Your task to perform on an android device: Open Chrome and go to settings Image 0: 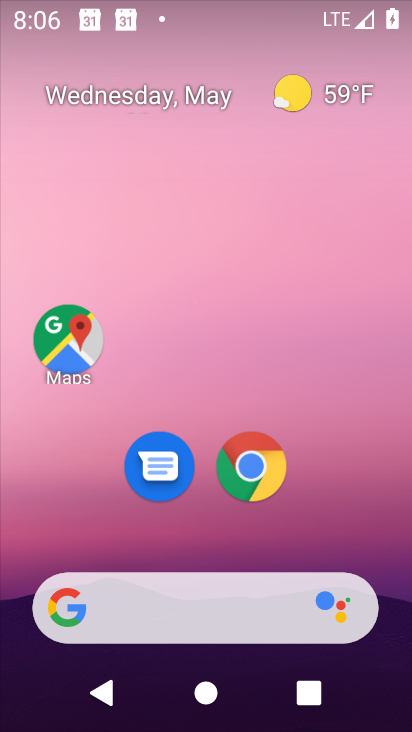
Step 0: drag from (332, 525) to (342, 222)
Your task to perform on an android device: Open Chrome and go to settings Image 1: 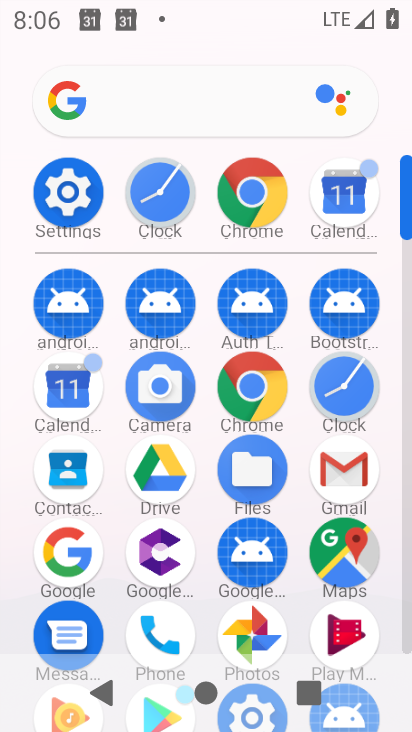
Step 1: click (251, 191)
Your task to perform on an android device: Open Chrome and go to settings Image 2: 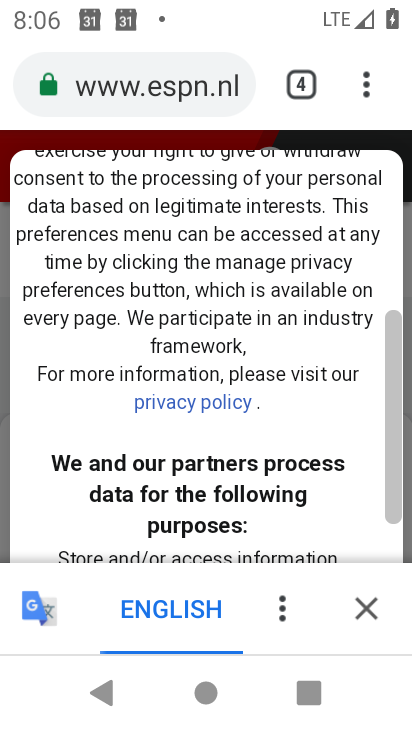
Step 2: click (355, 86)
Your task to perform on an android device: Open Chrome and go to settings Image 3: 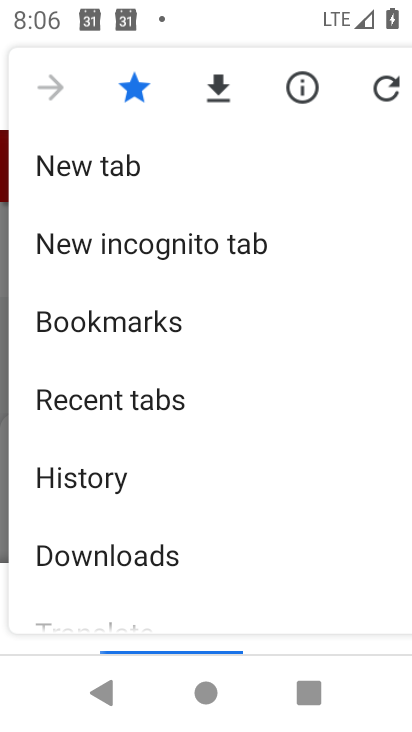
Step 3: drag from (193, 557) to (218, 204)
Your task to perform on an android device: Open Chrome and go to settings Image 4: 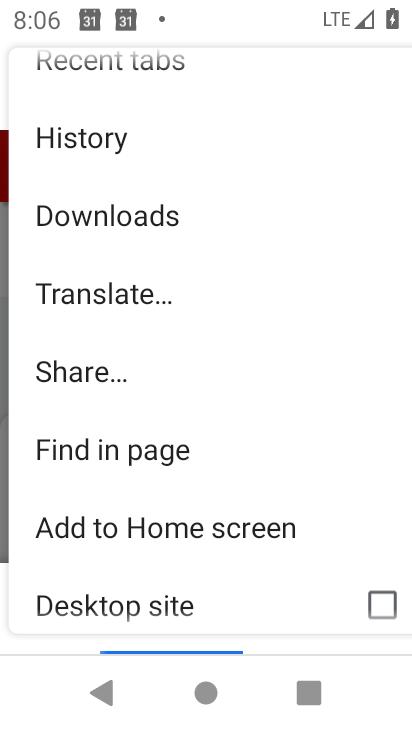
Step 4: drag from (159, 565) to (196, 186)
Your task to perform on an android device: Open Chrome and go to settings Image 5: 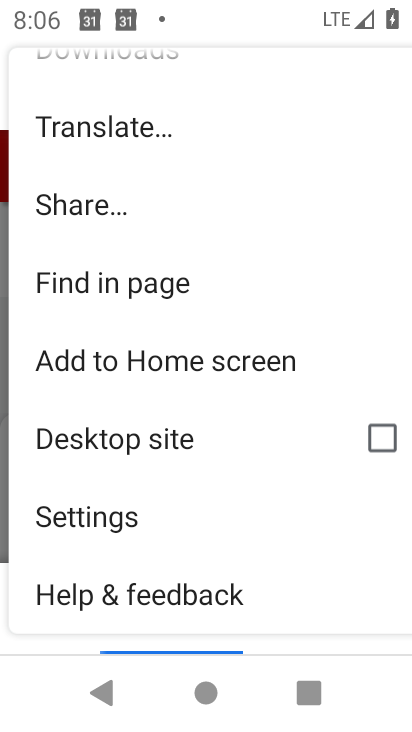
Step 5: click (126, 520)
Your task to perform on an android device: Open Chrome and go to settings Image 6: 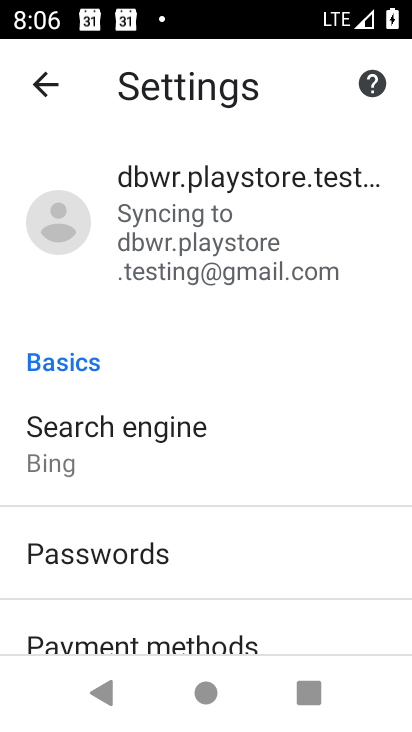
Step 6: task complete